Your task to perform on an android device: empty trash in the gmail app Image 0: 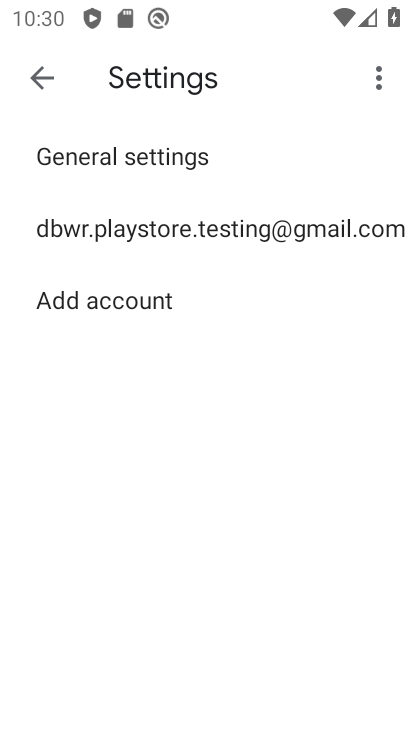
Step 0: press home button
Your task to perform on an android device: empty trash in the gmail app Image 1: 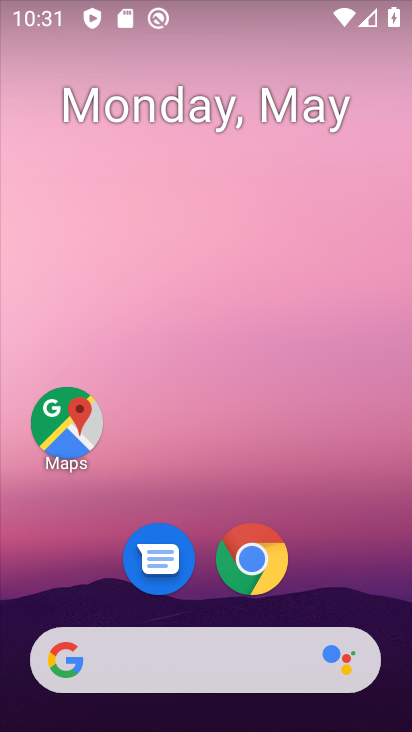
Step 1: drag from (184, 608) to (228, 285)
Your task to perform on an android device: empty trash in the gmail app Image 2: 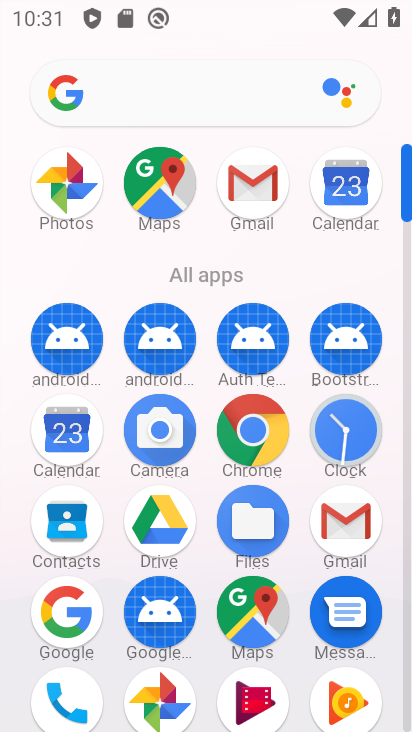
Step 2: click (252, 187)
Your task to perform on an android device: empty trash in the gmail app Image 3: 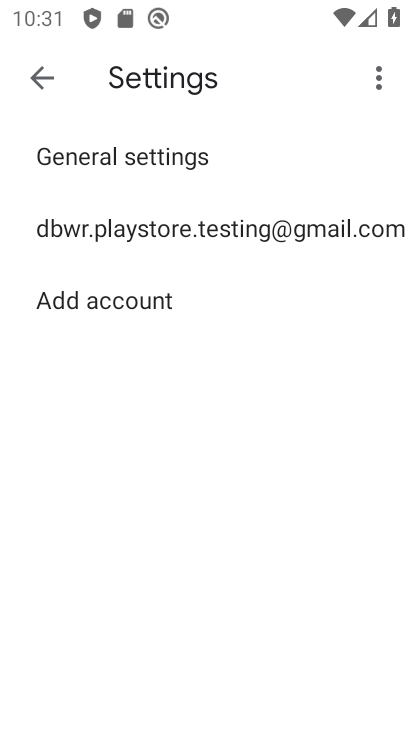
Step 3: click (44, 86)
Your task to perform on an android device: empty trash in the gmail app Image 4: 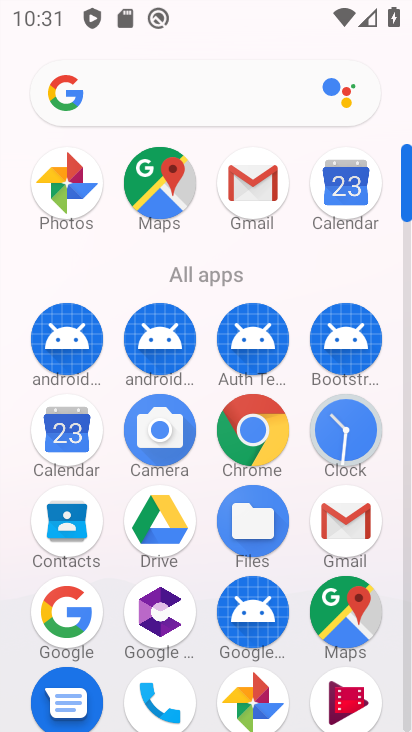
Step 4: click (342, 517)
Your task to perform on an android device: empty trash in the gmail app Image 5: 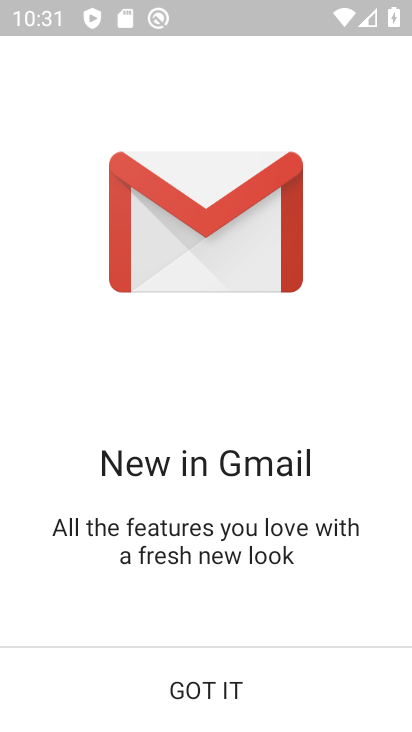
Step 5: click (204, 671)
Your task to perform on an android device: empty trash in the gmail app Image 6: 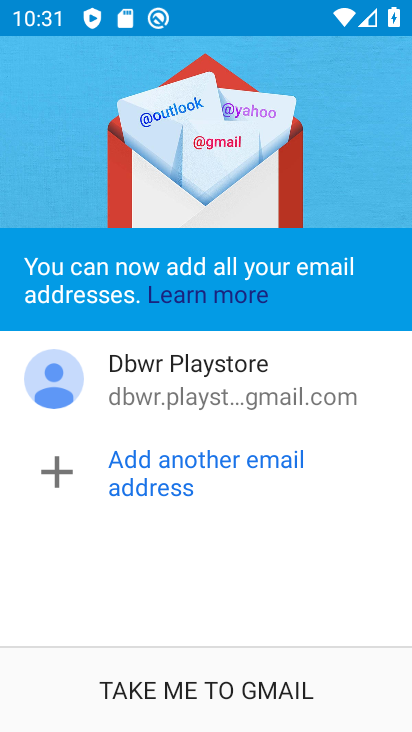
Step 6: click (177, 698)
Your task to perform on an android device: empty trash in the gmail app Image 7: 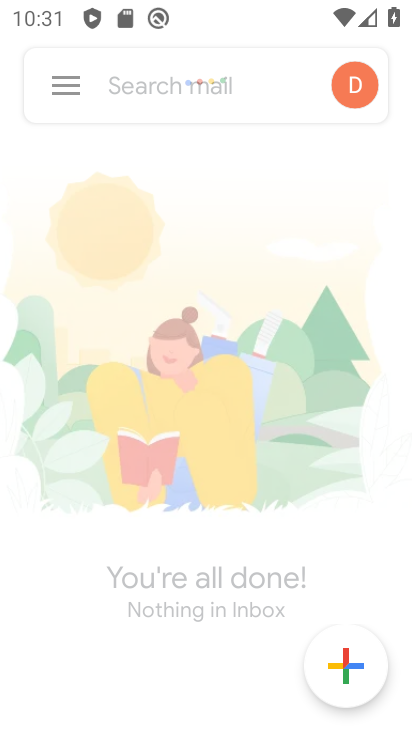
Step 7: click (67, 84)
Your task to perform on an android device: empty trash in the gmail app Image 8: 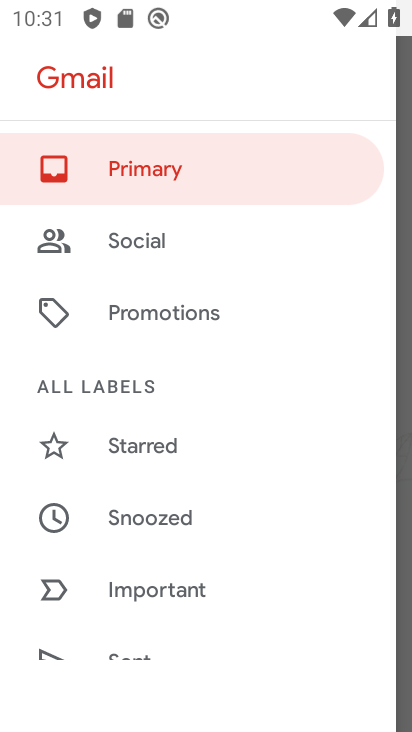
Step 8: drag from (150, 567) to (162, 228)
Your task to perform on an android device: empty trash in the gmail app Image 9: 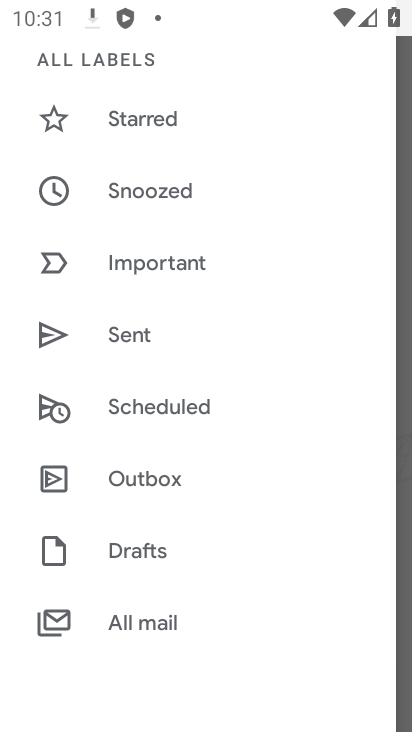
Step 9: drag from (164, 587) to (176, 201)
Your task to perform on an android device: empty trash in the gmail app Image 10: 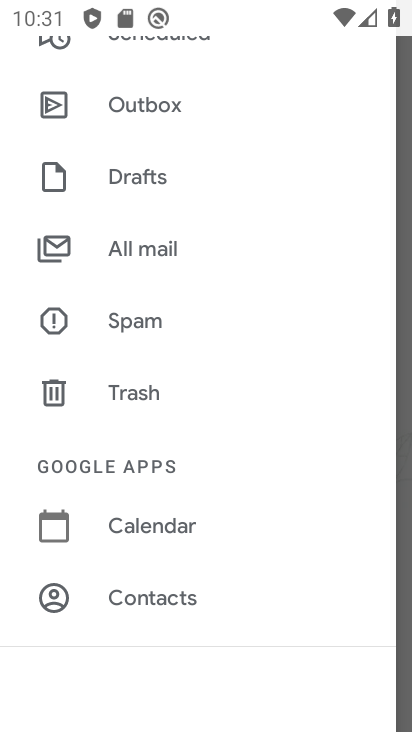
Step 10: click (144, 396)
Your task to perform on an android device: empty trash in the gmail app Image 11: 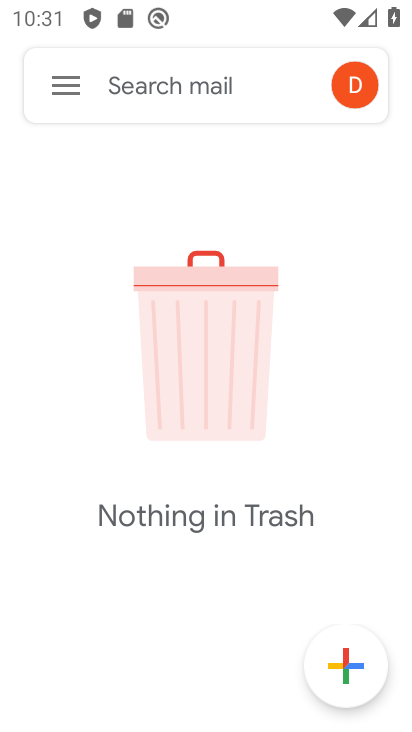
Step 11: task complete